Your task to perform on an android device: snooze an email in the gmail app Image 0: 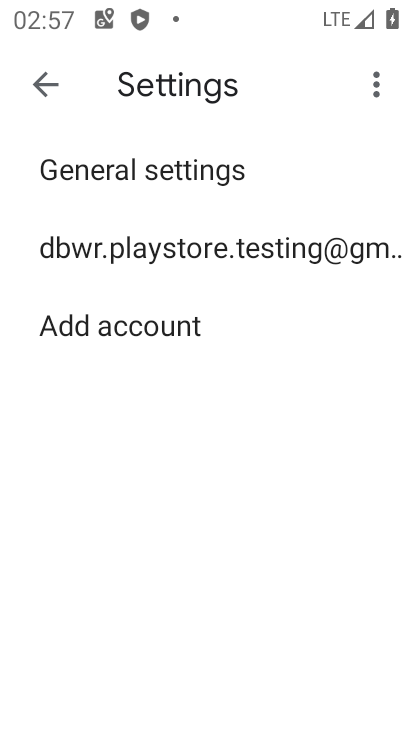
Step 0: press home button
Your task to perform on an android device: snooze an email in the gmail app Image 1: 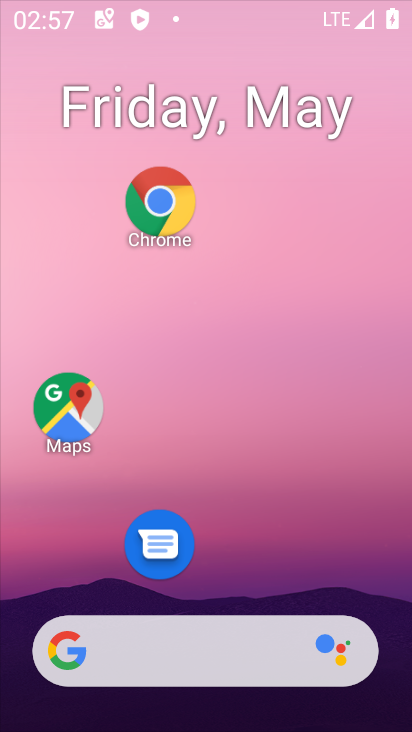
Step 1: drag from (330, 538) to (274, 202)
Your task to perform on an android device: snooze an email in the gmail app Image 2: 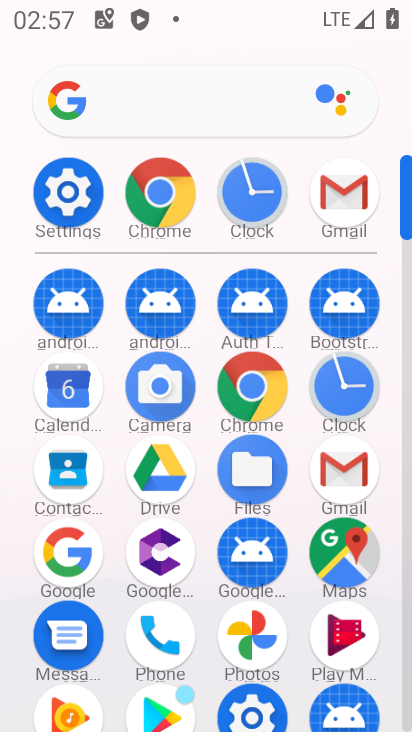
Step 2: click (333, 215)
Your task to perform on an android device: snooze an email in the gmail app Image 3: 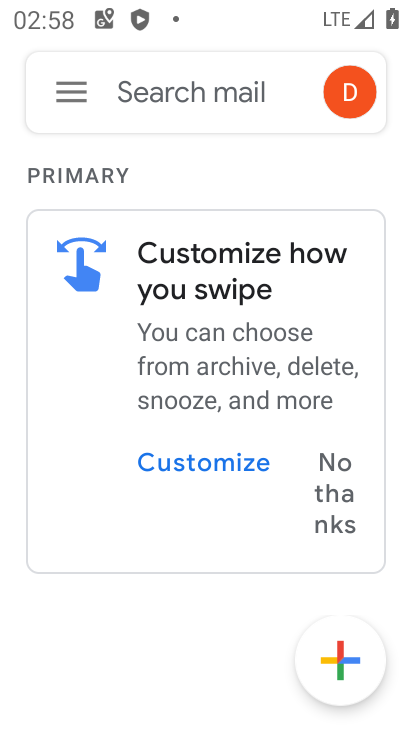
Step 3: click (84, 87)
Your task to perform on an android device: snooze an email in the gmail app Image 4: 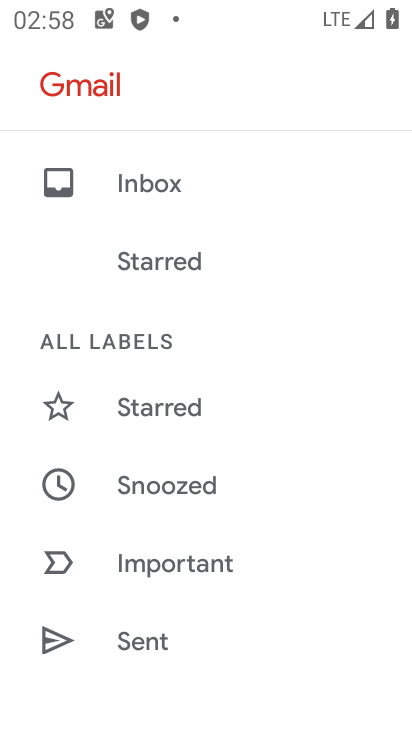
Step 4: click (171, 176)
Your task to perform on an android device: snooze an email in the gmail app Image 5: 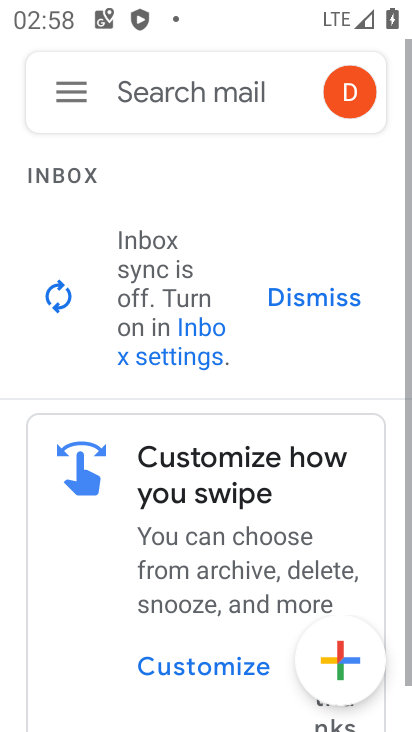
Step 5: drag from (208, 468) to (198, 171)
Your task to perform on an android device: snooze an email in the gmail app Image 6: 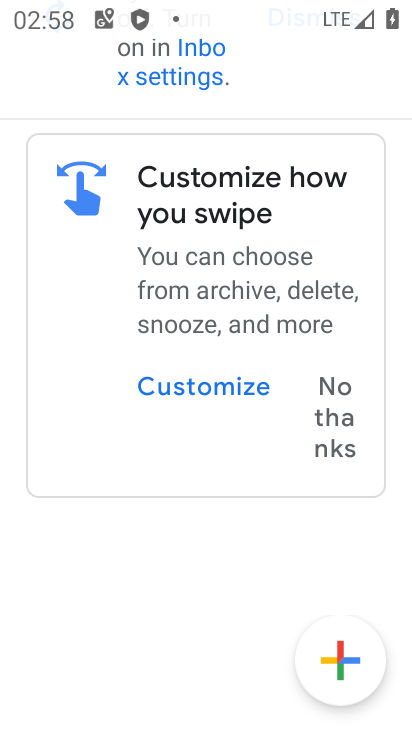
Step 6: drag from (285, 264) to (323, 539)
Your task to perform on an android device: snooze an email in the gmail app Image 7: 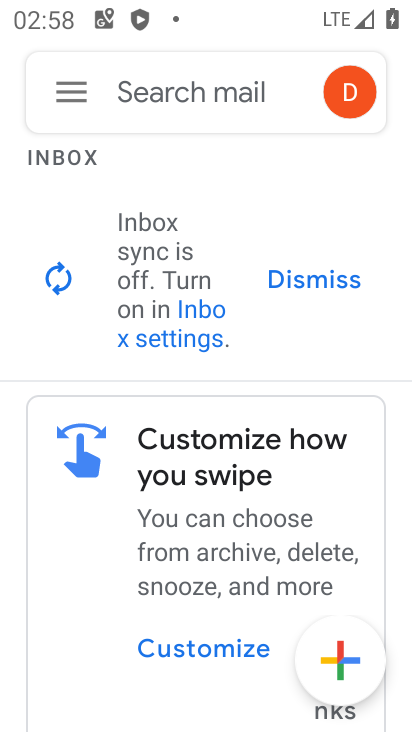
Step 7: click (286, 283)
Your task to perform on an android device: snooze an email in the gmail app Image 8: 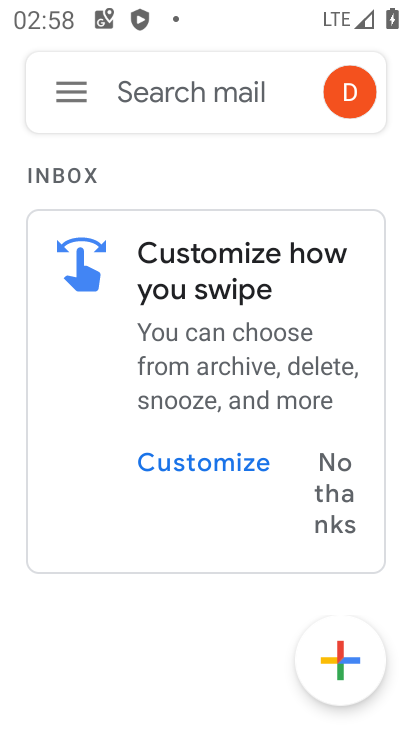
Step 8: click (337, 500)
Your task to perform on an android device: snooze an email in the gmail app Image 9: 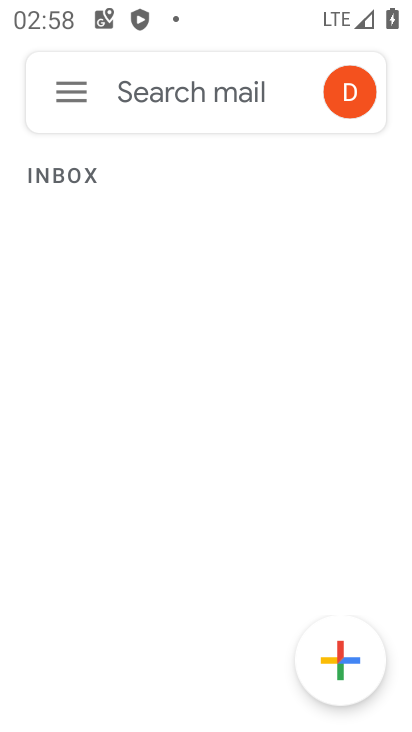
Step 9: click (74, 92)
Your task to perform on an android device: snooze an email in the gmail app Image 10: 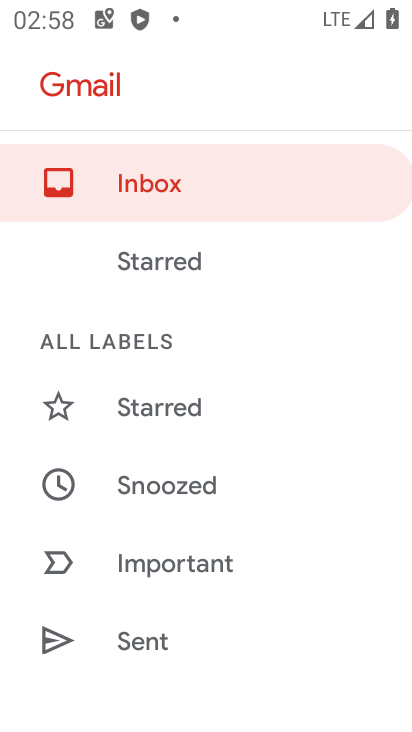
Step 10: task complete